Your task to perform on an android device: delete a single message in the gmail app Image 0: 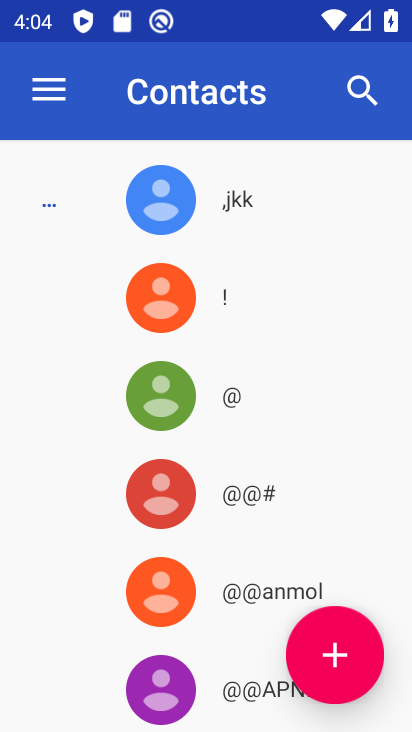
Step 0: press home button
Your task to perform on an android device: delete a single message in the gmail app Image 1: 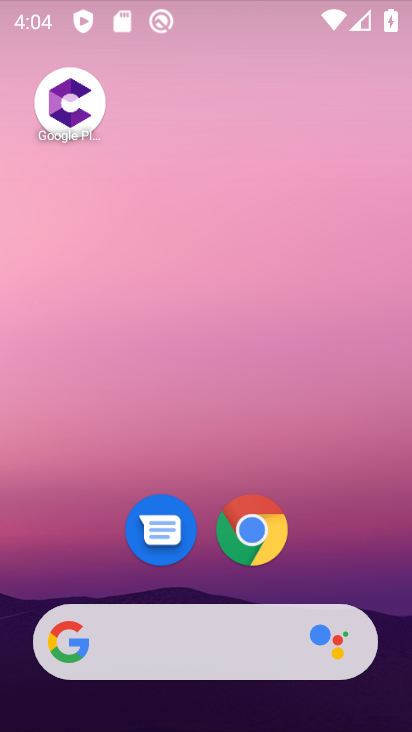
Step 1: drag from (274, 652) to (367, 74)
Your task to perform on an android device: delete a single message in the gmail app Image 2: 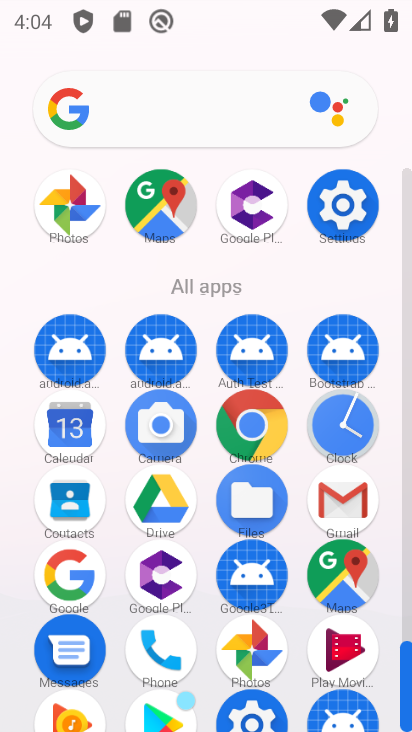
Step 2: click (352, 474)
Your task to perform on an android device: delete a single message in the gmail app Image 3: 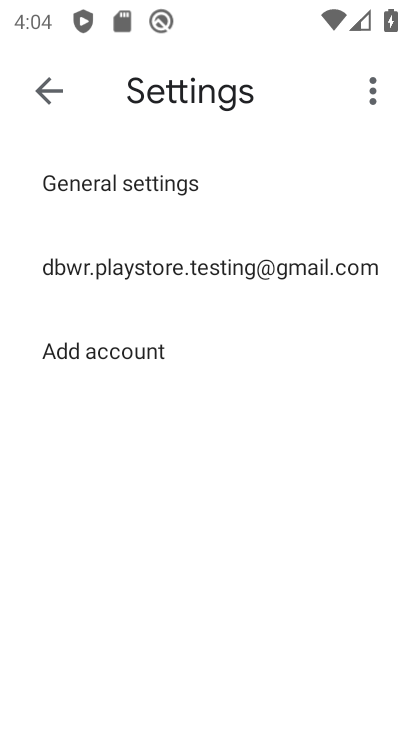
Step 3: click (208, 252)
Your task to perform on an android device: delete a single message in the gmail app Image 4: 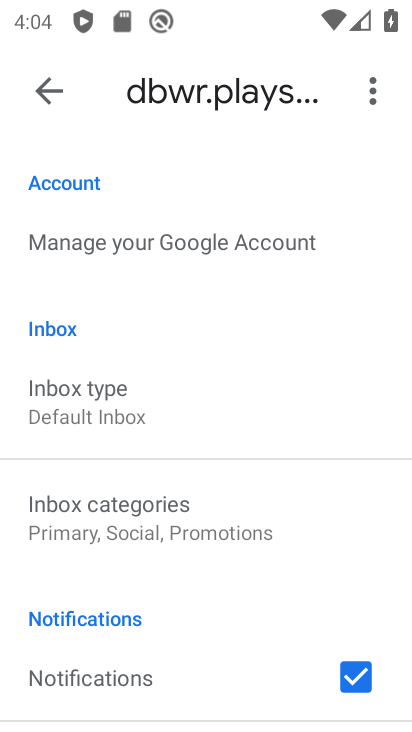
Step 4: click (36, 96)
Your task to perform on an android device: delete a single message in the gmail app Image 5: 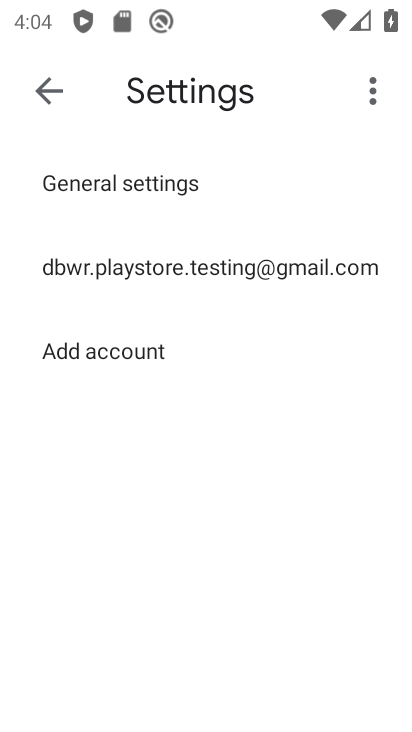
Step 5: click (37, 103)
Your task to perform on an android device: delete a single message in the gmail app Image 6: 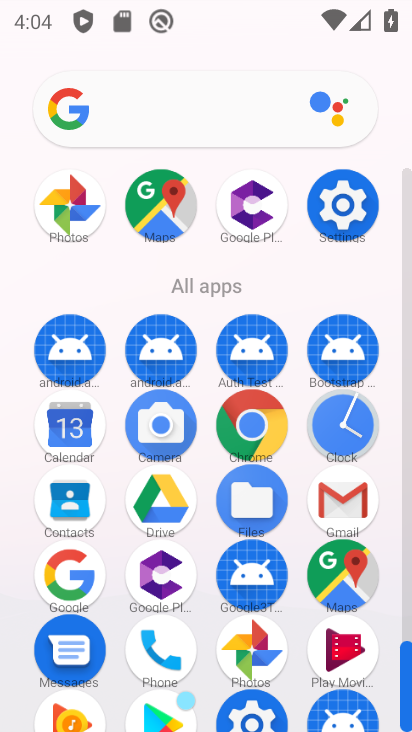
Step 6: click (331, 481)
Your task to perform on an android device: delete a single message in the gmail app Image 7: 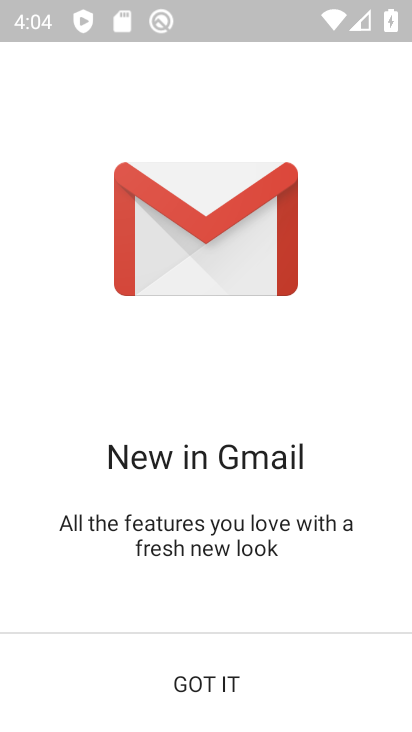
Step 7: click (225, 651)
Your task to perform on an android device: delete a single message in the gmail app Image 8: 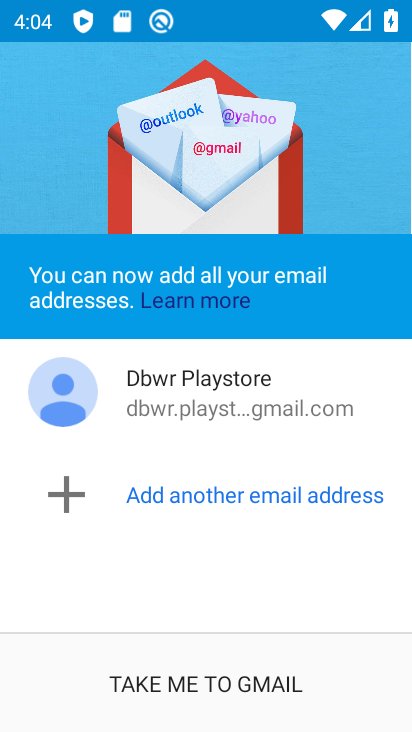
Step 8: click (211, 677)
Your task to perform on an android device: delete a single message in the gmail app Image 9: 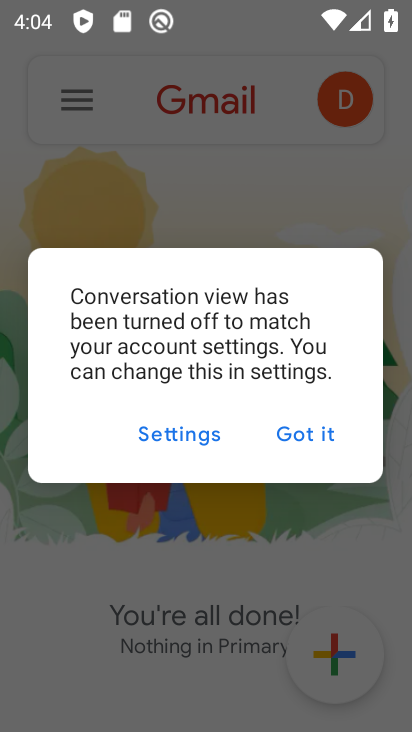
Step 9: click (298, 409)
Your task to perform on an android device: delete a single message in the gmail app Image 10: 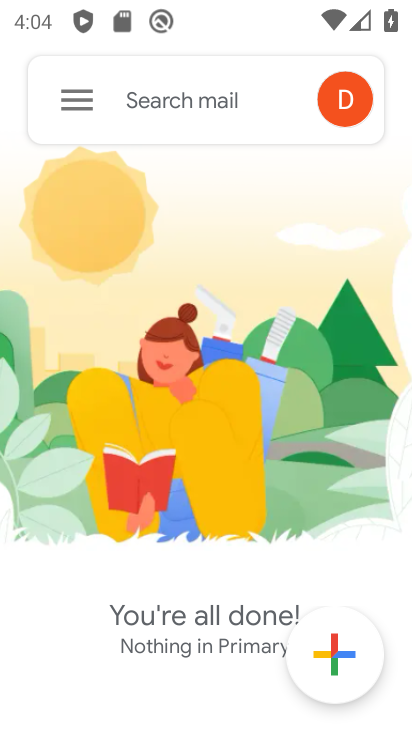
Step 10: task complete